Your task to perform on an android device: What's on my calendar tomorrow? Image 0: 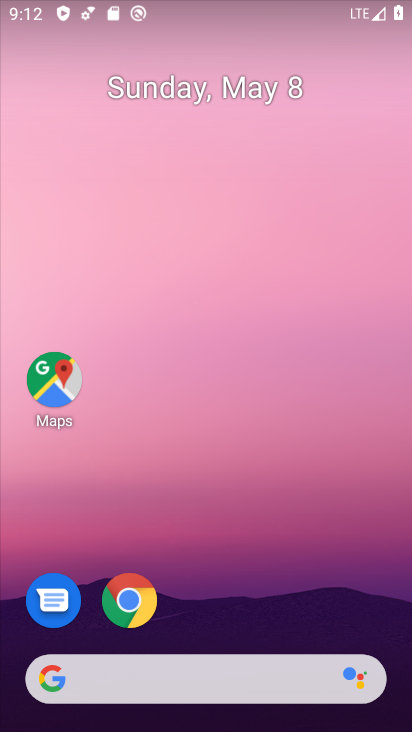
Step 0: drag from (339, 626) to (306, 0)
Your task to perform on an android device: What's on my calendar tomorrow? Image 1: 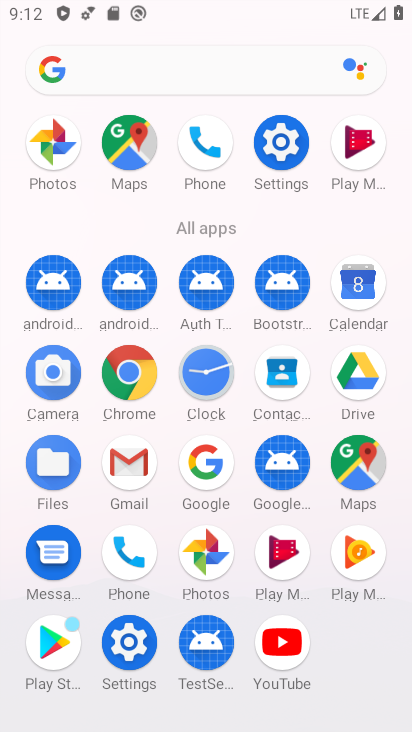
Step 1: click (353, 280)
Your task to perform on an android device: What's on my calendar tomorrow? Image 2: 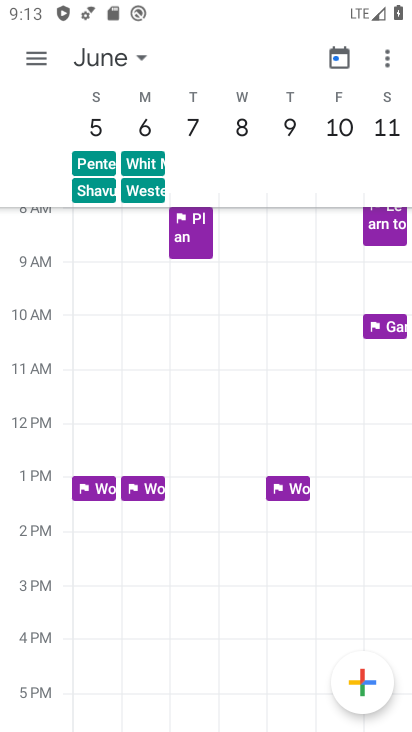
Step 2: click (143, 59)
Your task to perform on an android device: What's on my calendar tomorrow? Image 3: 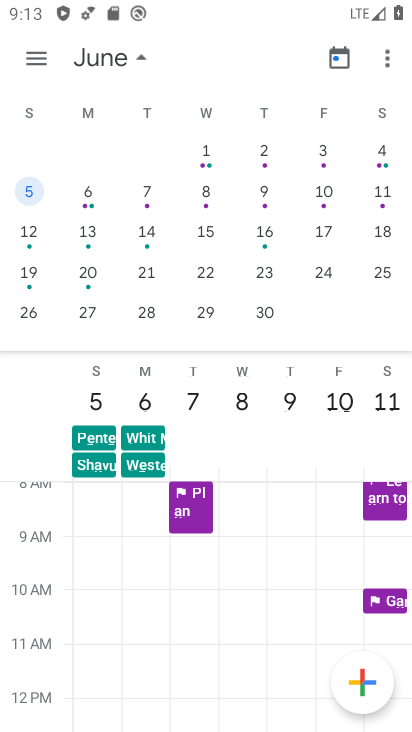
Step 3: drag from (83, 188) to (408, 193)
Your task to perform on an android device: What's on my calendar tomorrow? Image 4: 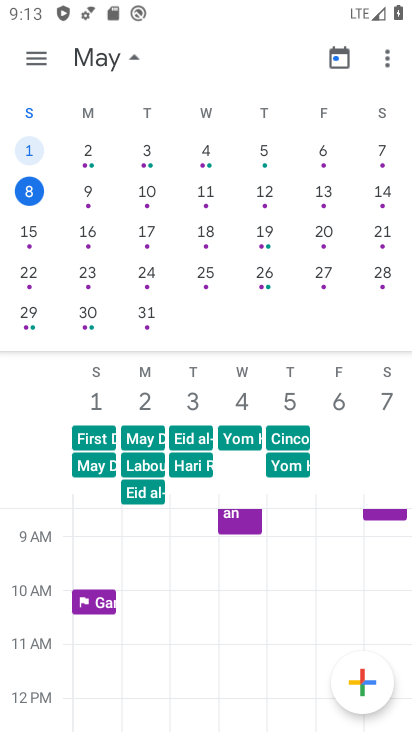
Step 4: click (38, 50)
Your task to perform on an android device: What's on my calendar tomorrow? Image 5: 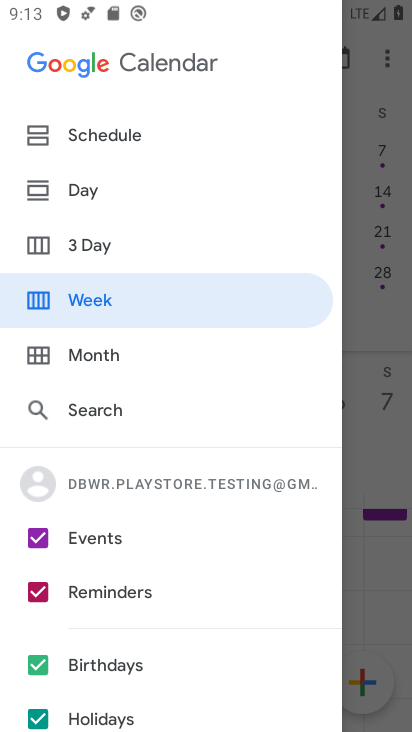
Step 5: click (66, 130)
Your task to perform on an android device: What's on my calendar tomorrow? Image 6: 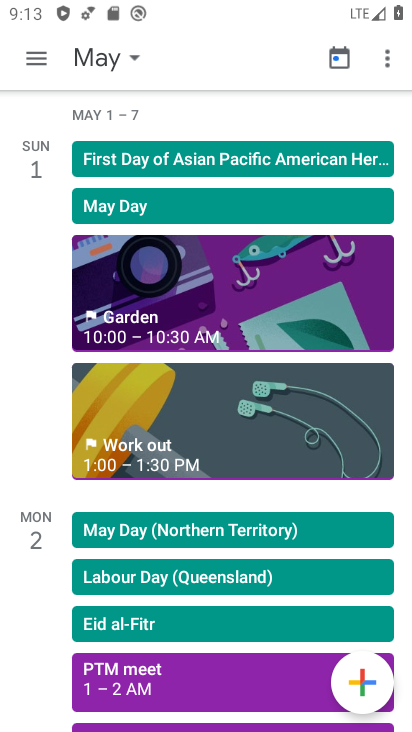
Step 6: click (134, 60)
Your task to perform on an android device: What's on my calendar tomorrow? Image 7: 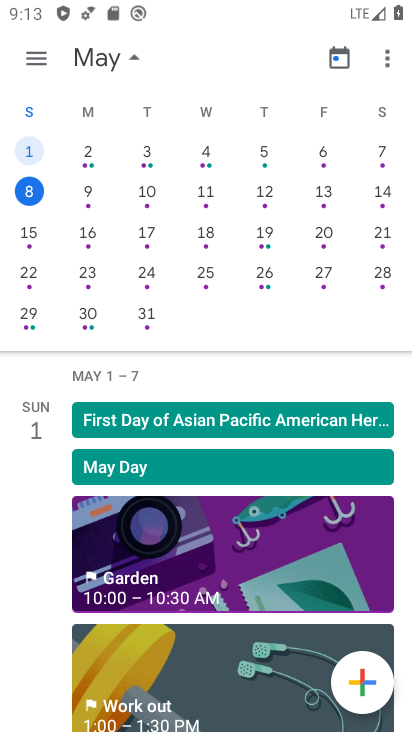
Step 7: click (89, 196)
Your task to perform on an android device: What's on my calendar tomorrow? Image 8: 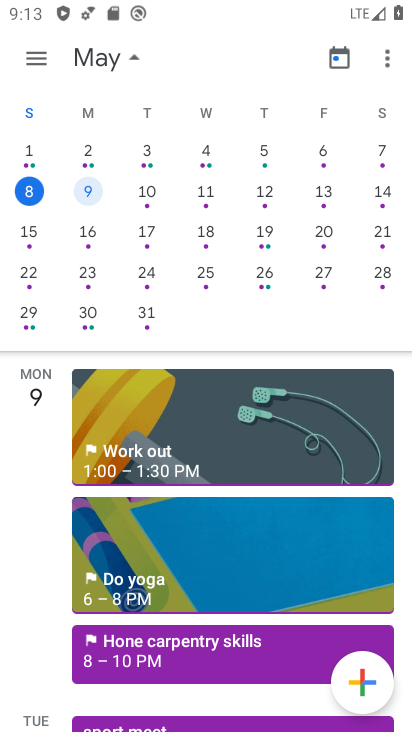
Step 8: click (197, 637)
Your task to perform on an android device: What's on my calendar tomorrow? Image 9: 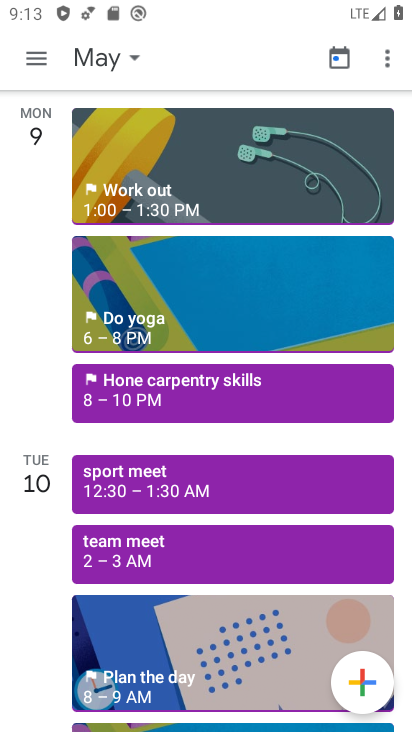
Step 9: click (152, 389)
Your task to perform on an android device: What's on my calendar tomorrow? Image 10: 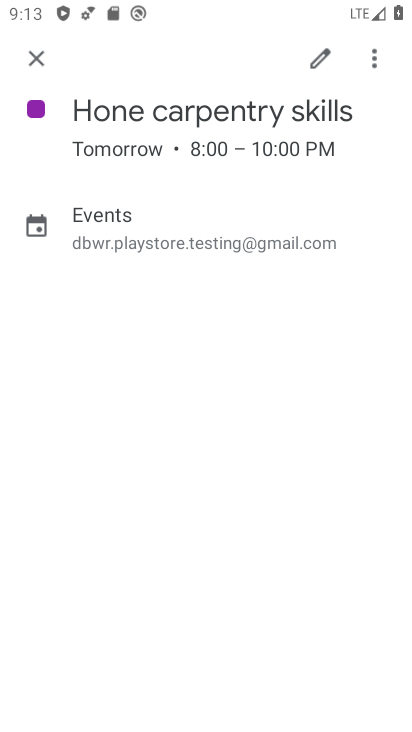
Step 10: task complete